Your task to perform on an android device: Add "bose soundsport free" to the cart on target.com Image 0: 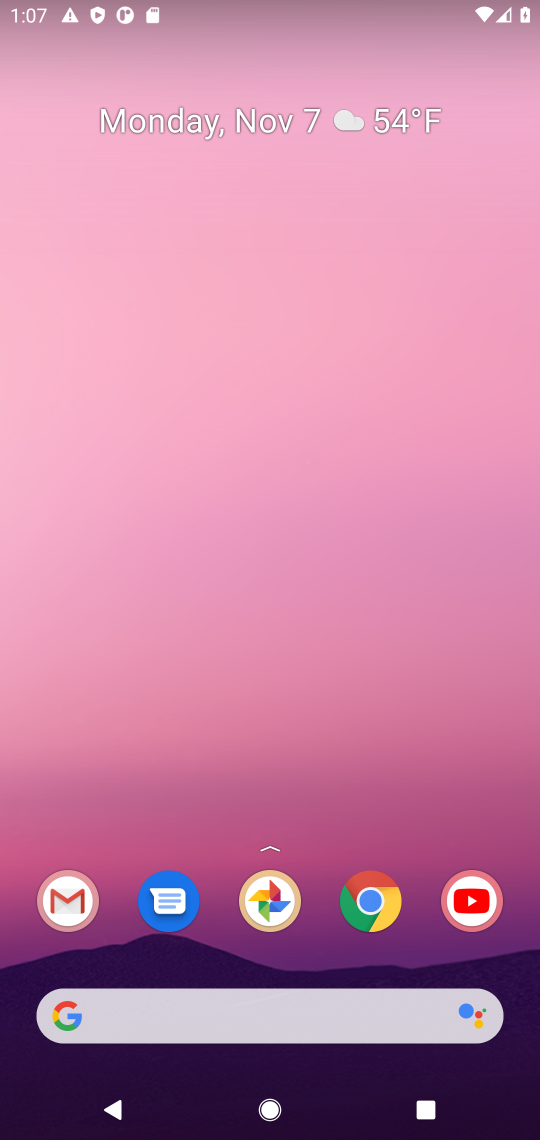
Step 0: click (371, 903)
Your task to perform on an android device: Add "bose soundsport free" to the cart on target.com Image 1: 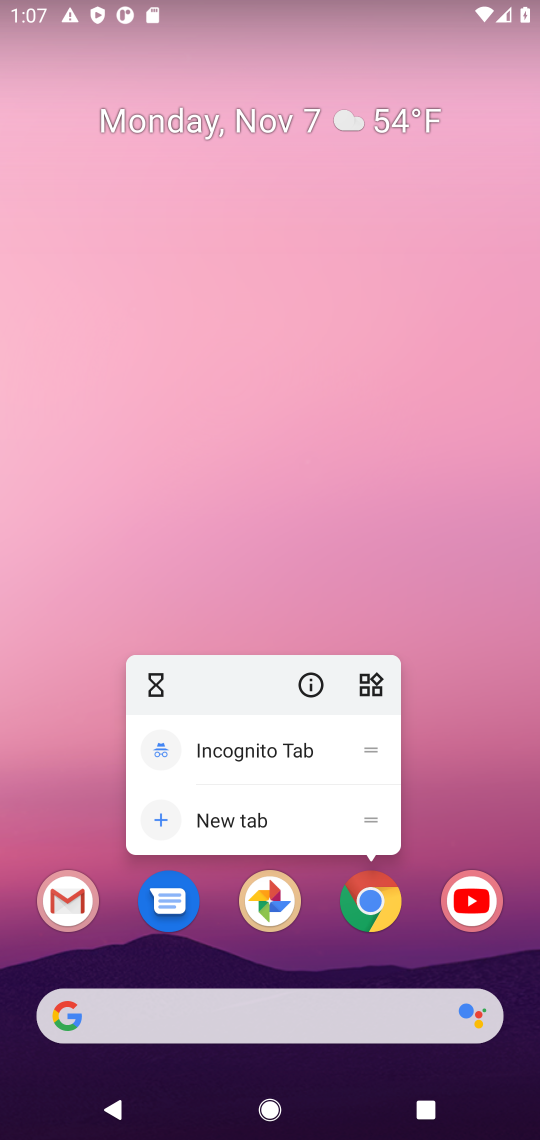
Step 1: click (371, 903)
Your task to perform on an android device: Add "bose soundsport free" to the cart on target.com Image 2: 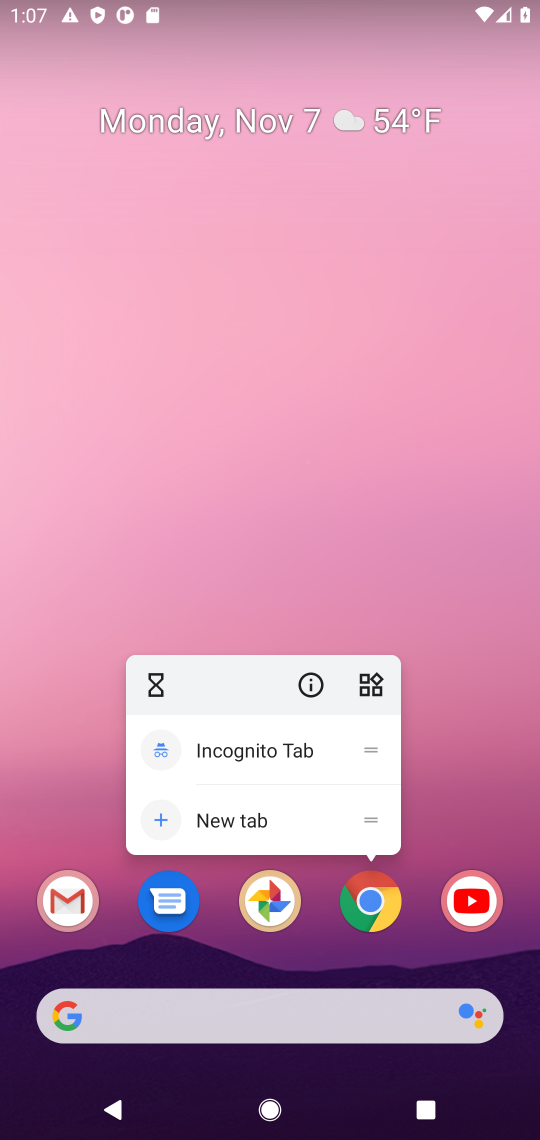
Step 2: click (371, 903)
Your task to perform on an android device: Add "bose soundsport free" to the cart on target.com Image 3: 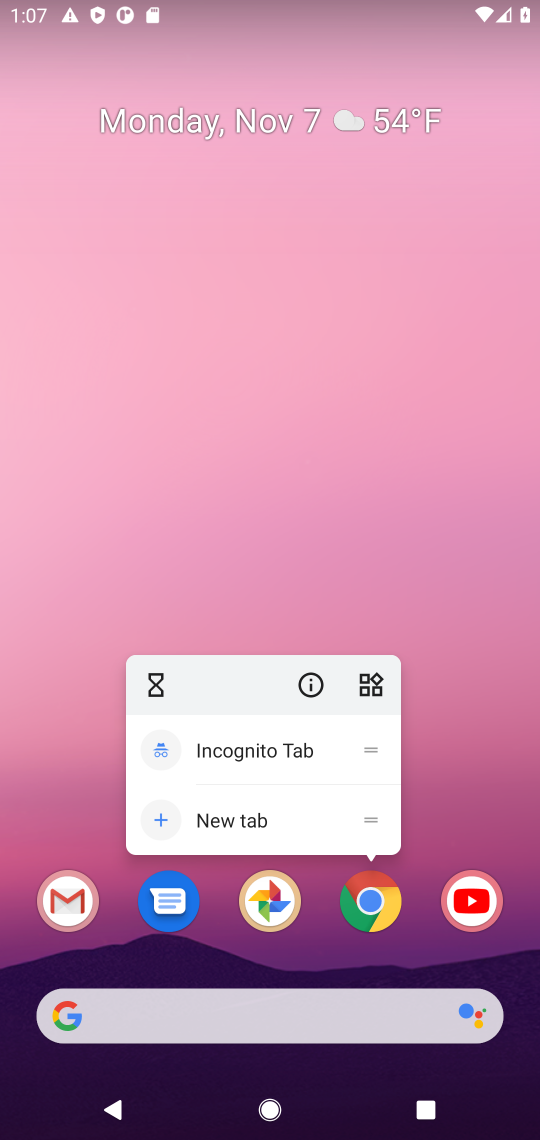
Step 3: click (372, 904)
Your task to perform on an android device: Add "bose soundsport free" to the cart on target.com Image 4: 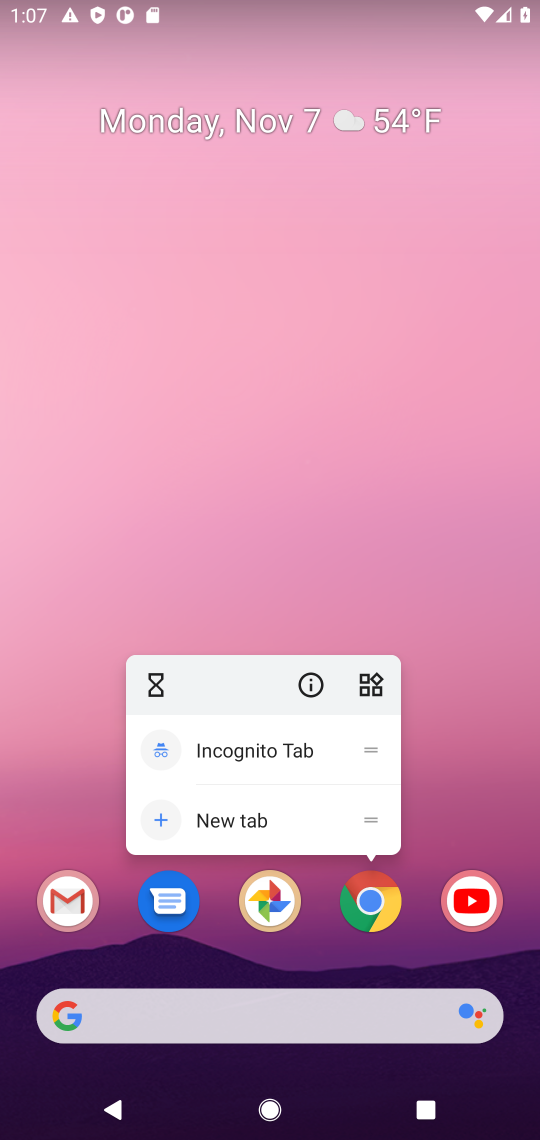
Step 4: click (363, 918)
Your task to perform on an android device: Add "bose soundsport free" to the cart on target.com Image 5: 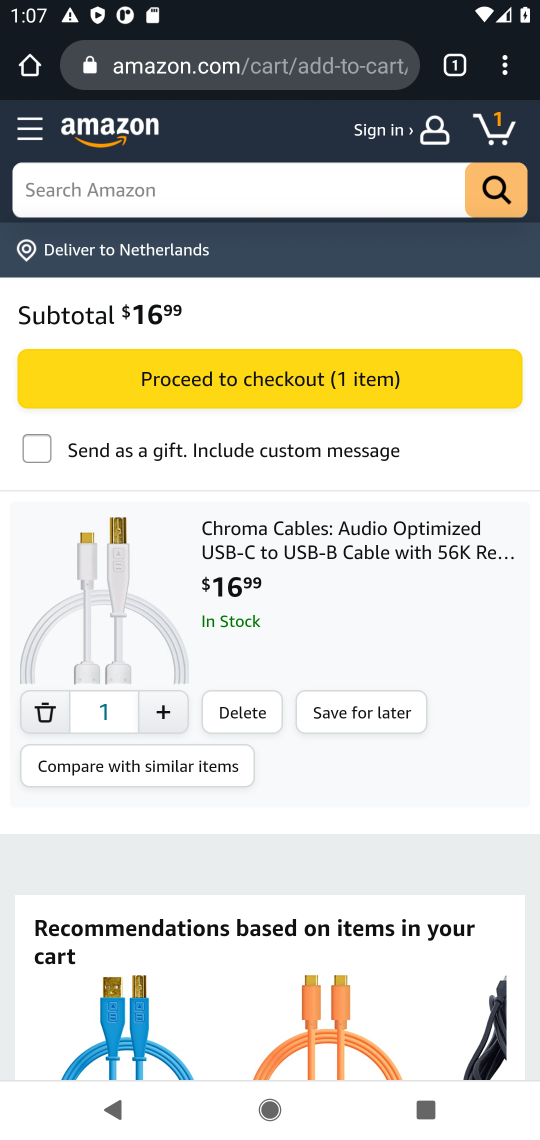
Step 5: click (238, 77)
Your task to perform on an android device: Add "bose soundsport free" to the cart on target.com Image 6: 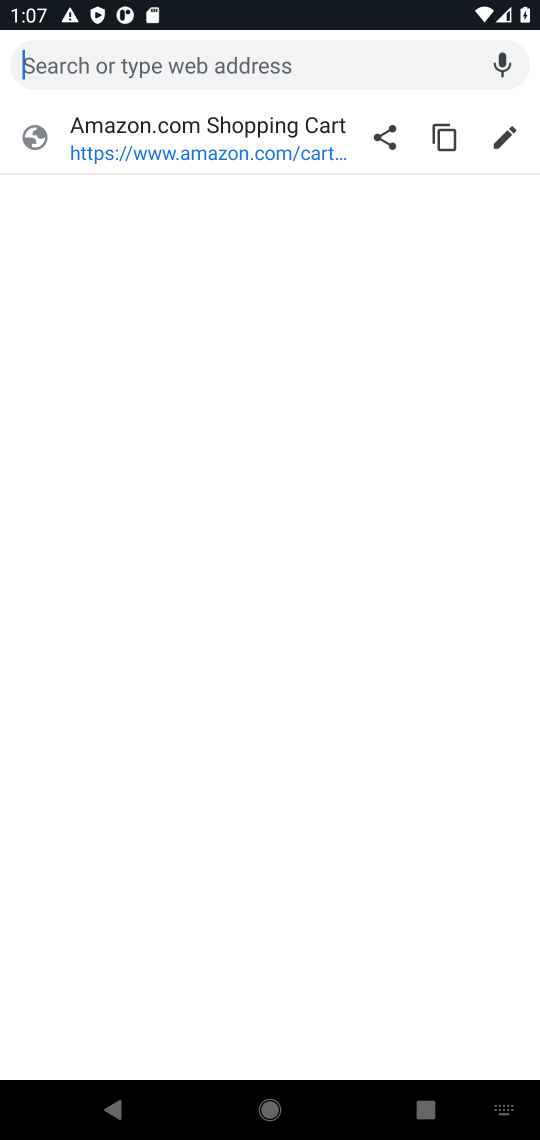
Step 6: type "target.com"
Your task to perform on an android device: Add "bose soundsport free" to the cart on target.com Image 7: 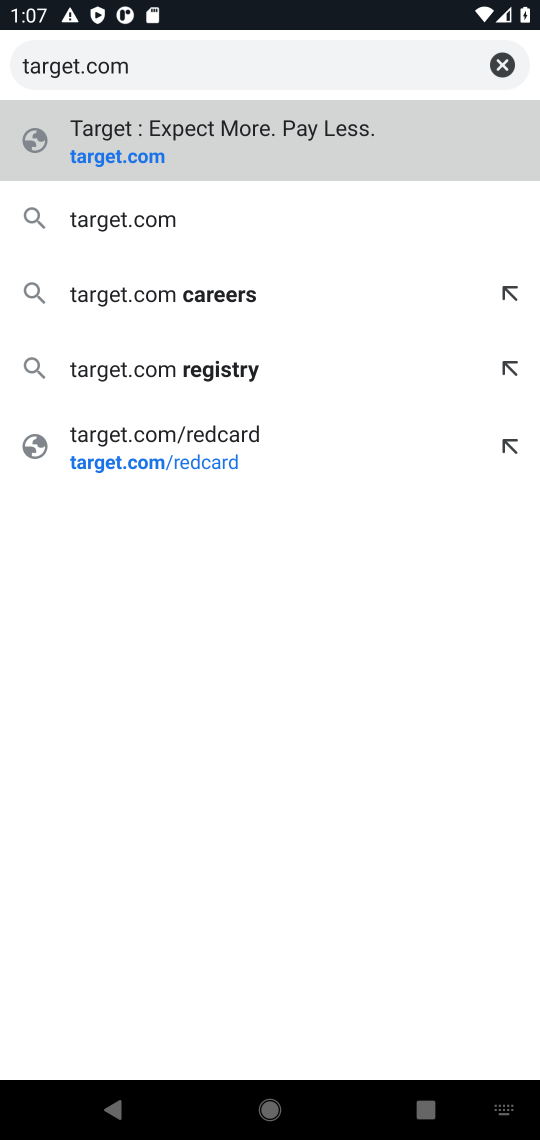
Step 7: click (116, 166)
Your task to perform on an android device: Add "bose soundsport free" to the cart on target.com Image 8: 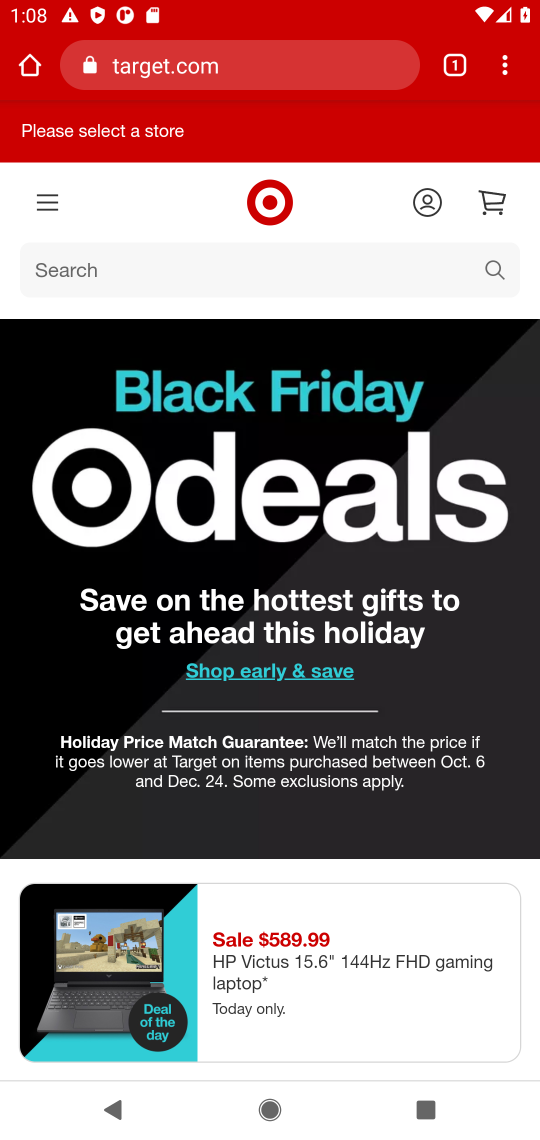
Step 8: click (482, 269)
Your task to perform on an android device: Add "bose soundsport free" to the cart on target.com Image 9: 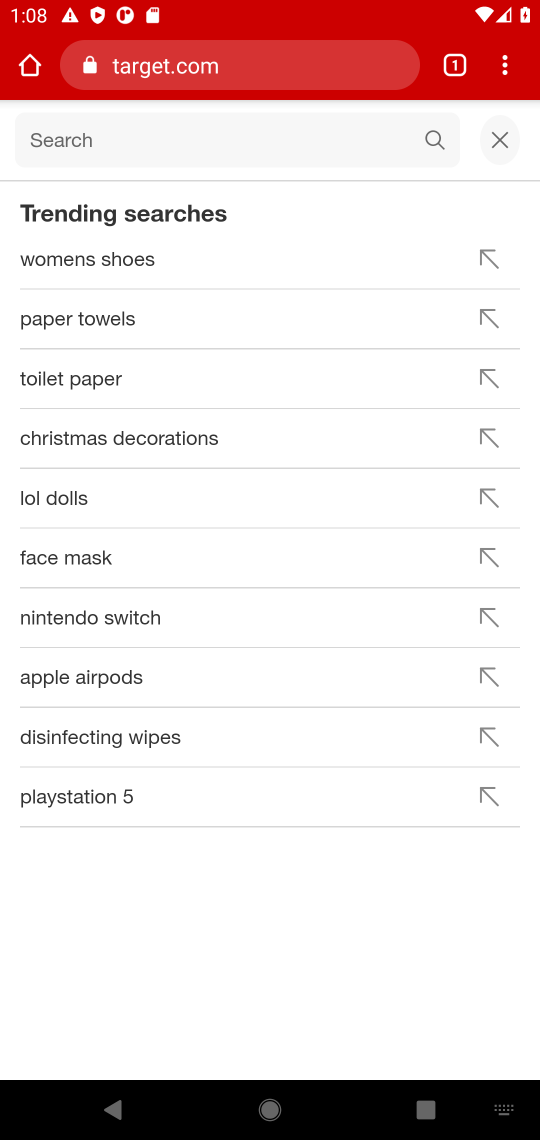
Step 9: type "bose soundsport free"
Your task to perform on an android device: Add "bose soundsport free" to the cart on target.com Image 10: 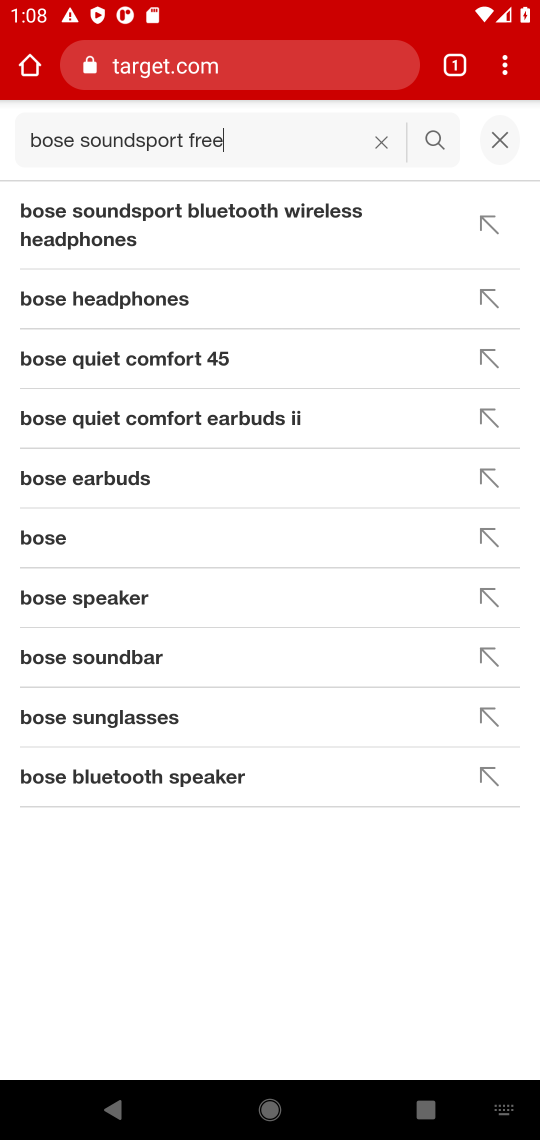
Step 10: click (429, 137)
Your task to perform on an android device: Add "bose soundsport free" to the cart on target.com Image 11: 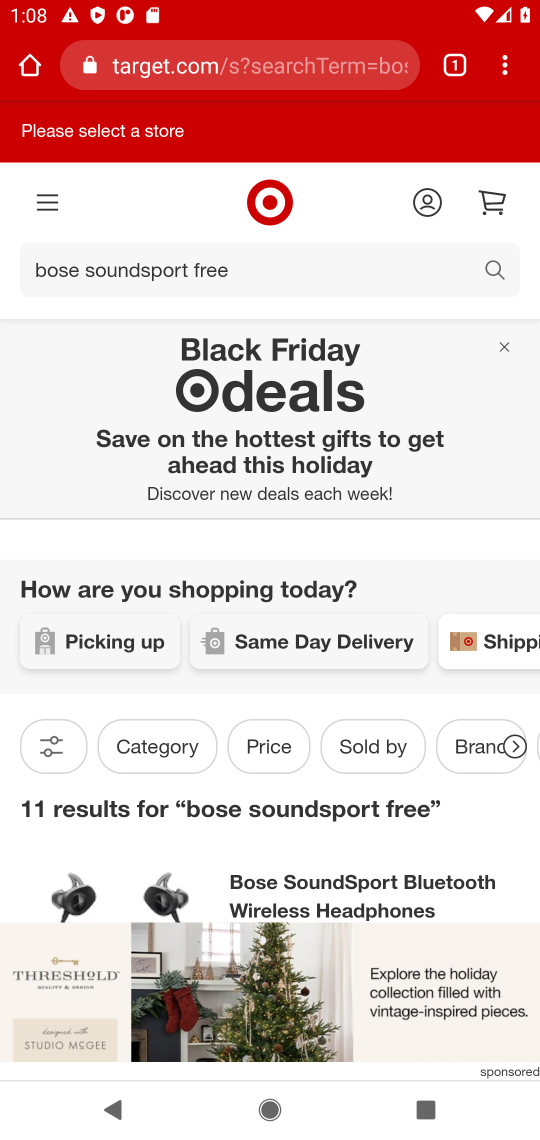
Step 11: task complete